Your task to perform on an android device: turn on data saver in the chrome app Image 0: 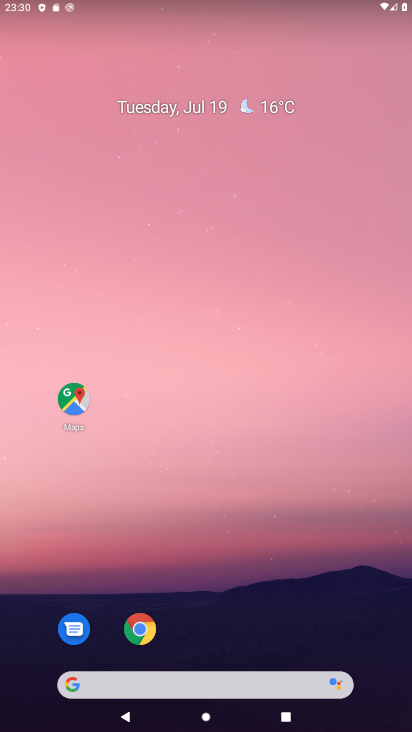
Step 0: click (138, 622)
Your task to perform on an android device: turn on data saver in the chrome app Image 1: 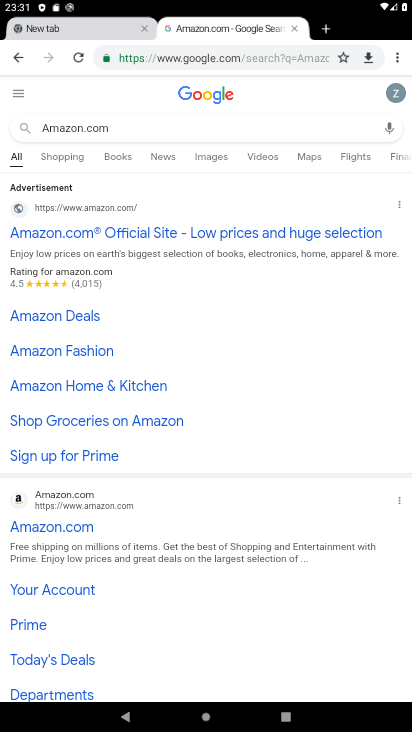
Step 1: click (396, 54)
Your task to perform on an android device: turn on data saver in the chrome app Image 2: 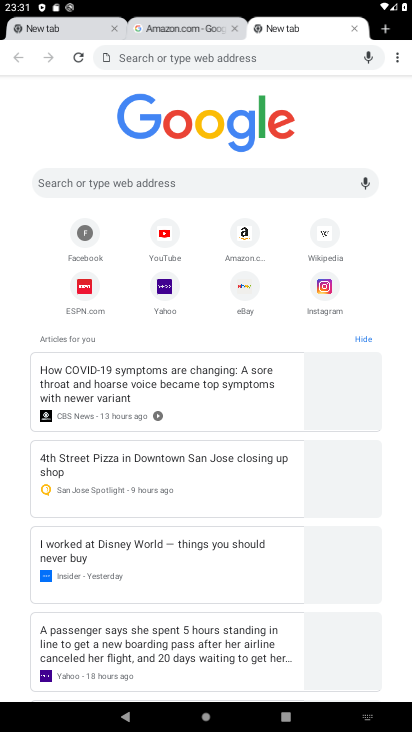
Step 2: click (396, 54)
Your task to perform on an android device: turn on data saver in the chrome app Image 3: 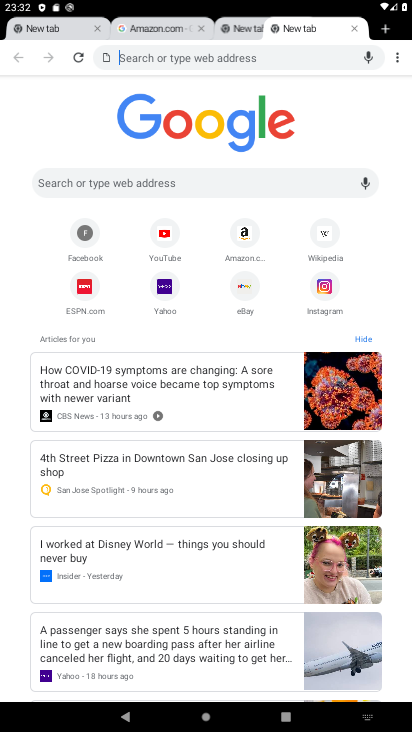
Step 3: click (398, 56)
Your task to perform on an android device: turn on data saver in the chrome app Image 4: 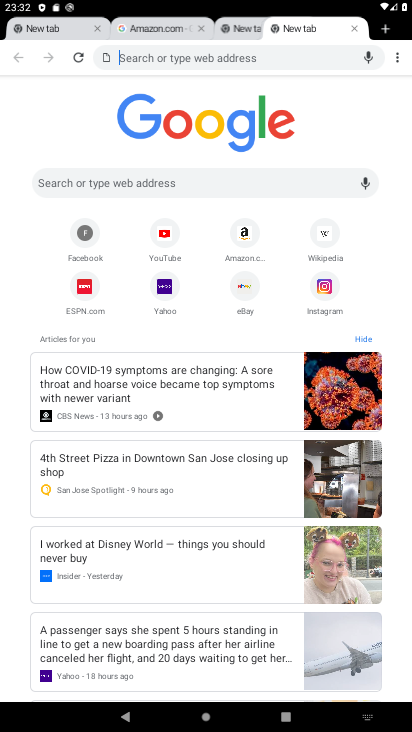
Step 4: click (395, 61)
Your task to perform on an android device: turn on data saver in the chrome app Image 5: 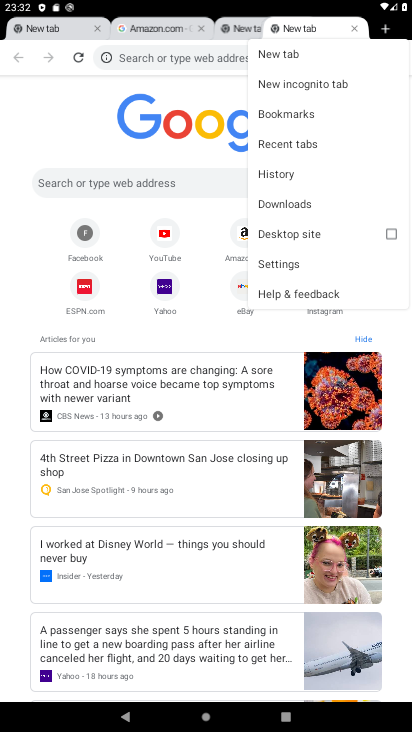
Step 5: click (276, 267)
Your task to perform on an android device: turn on data saver in the chrome app Image 6: 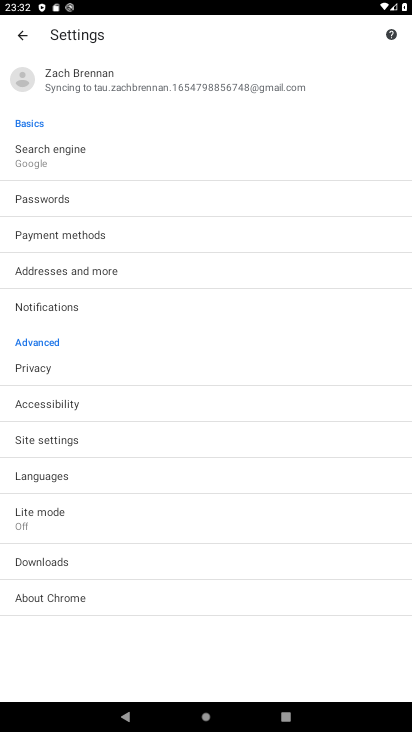
Step 6: click (45, 528)
Your task to perform on an android device: turn on data saver in the chrome app Image 7: 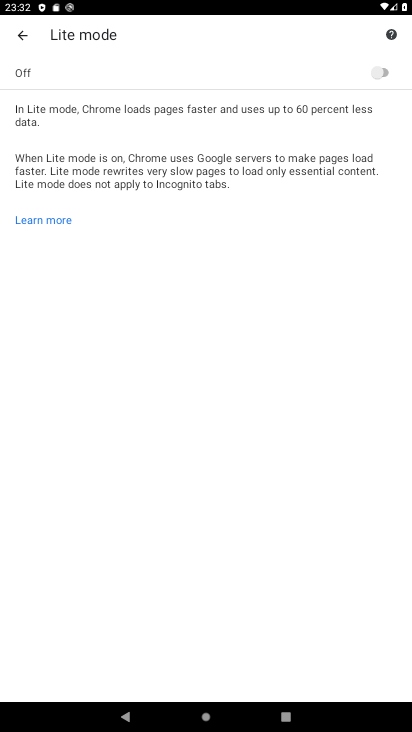
Step 7: click (385, 72)
Your task to perform on an android device: turn on data saver in the chrome app Image 8: 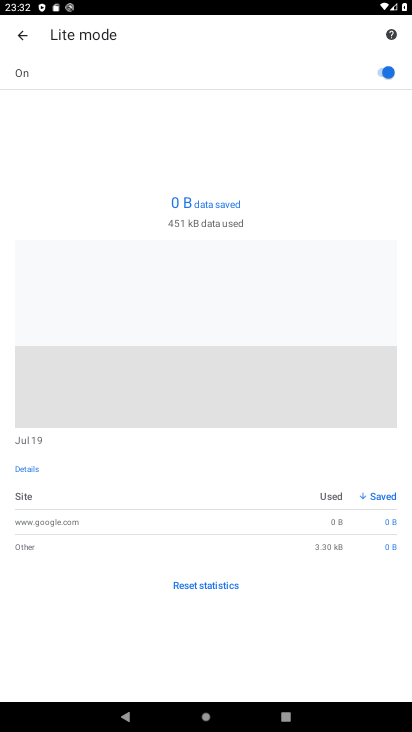
Step 8: task complete